Your task to perform on an android device: Go to display settings Image 0: 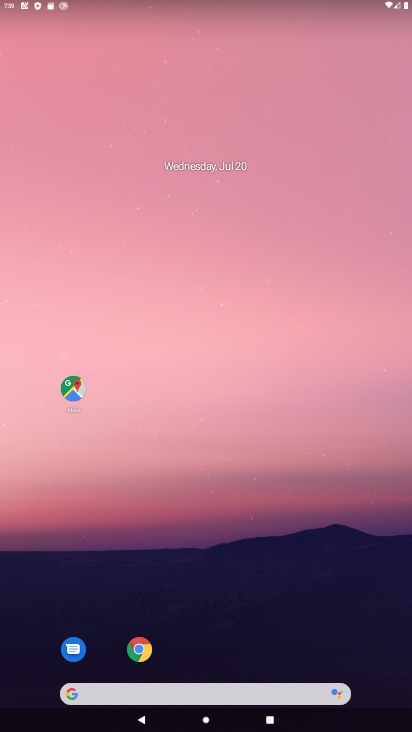
Step 0: drag from (268, 649) to (190, 257)
Your task to perform on an android device: Go to display settings Image 1: 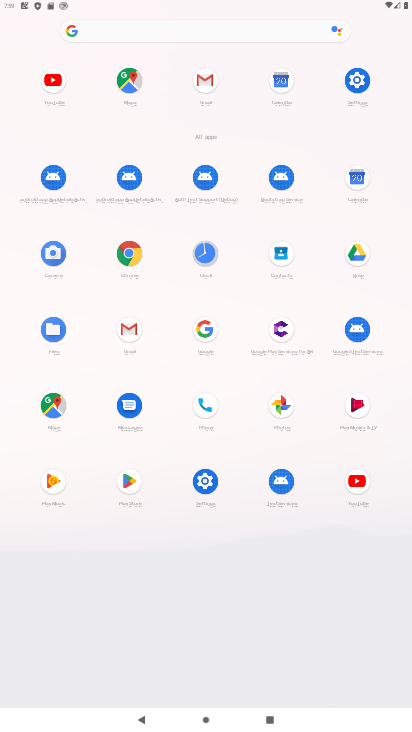
Step 1: click (350, 94)
Your task to perform on an android device: Go to display settings Image 2: 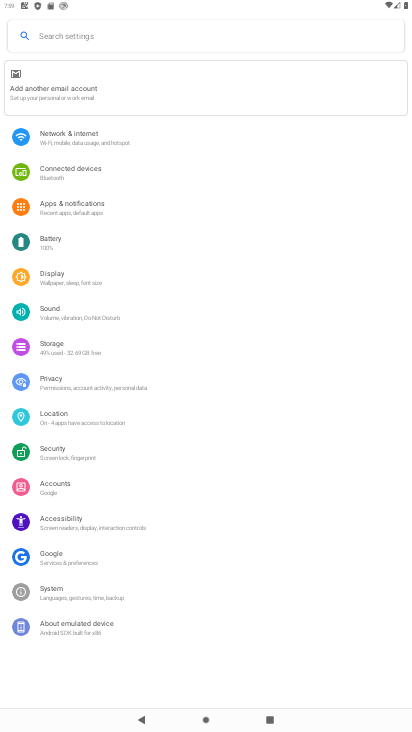
Step 2: click (54, 286)
Your task to perform on an android device: Go to display settings Image 3: 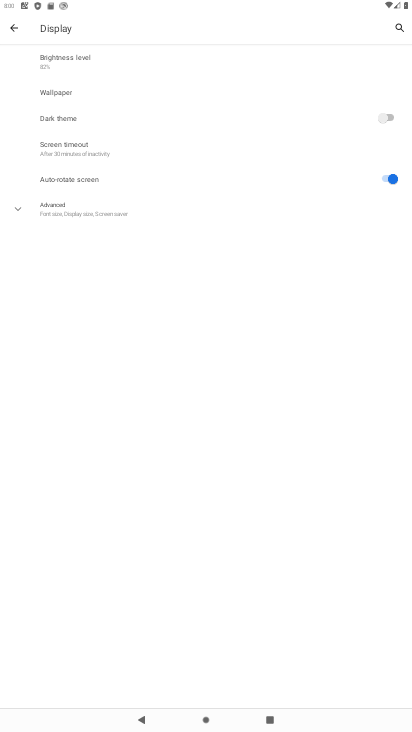
Step 3: task complete